Your task to perform on an android device: turn on notifications settings in the gmail app Image 0: 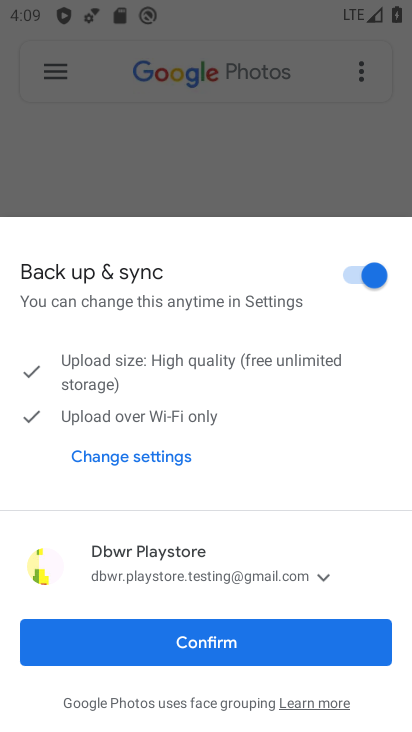
Step 0: press home button
Your task to perform on an android device: turn on notifications settings in the gmail app Image 1: 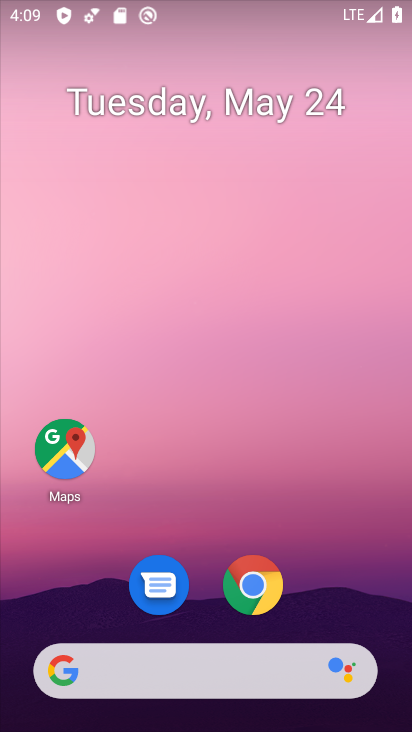
Step 1: drag from (234, 476) to (237, 98)
Your task to perform on an android device: turn on notifications settings in the gmail app Image 2: 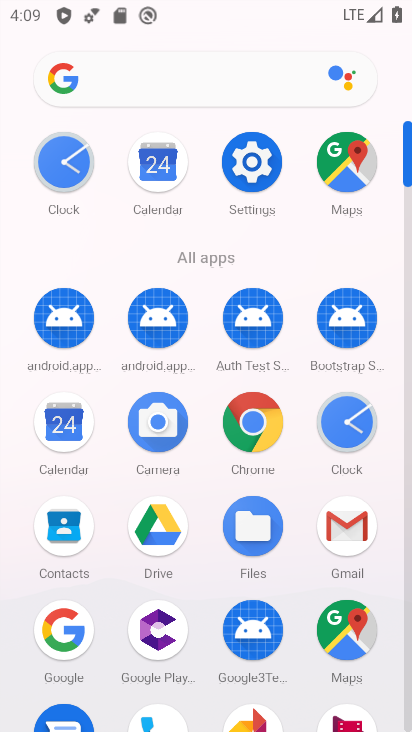
Step 2: click (350, 514)
Your task to perform on an android device: turn on notifications settings in the gmail app Image 3: 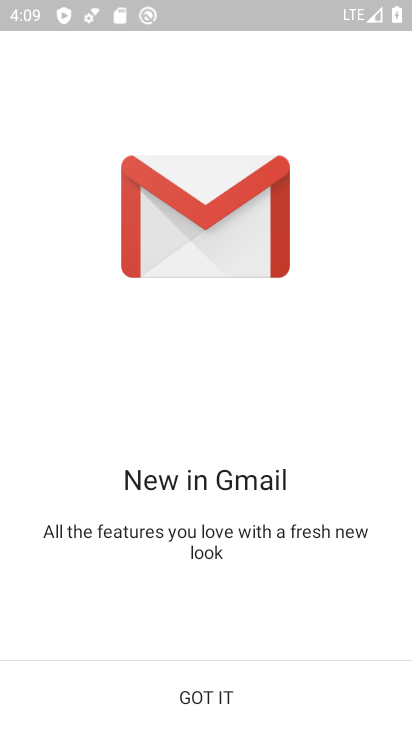
Step 3: click (301, 699)
Your task to perform on an android device: turn on notifications settings in the gmail app Image 4: 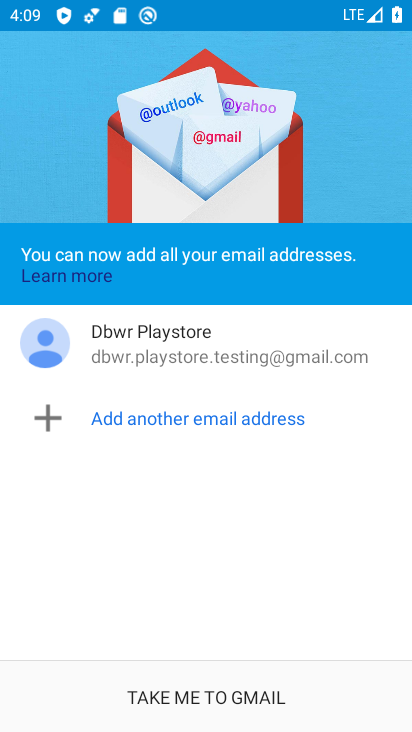
Step 4: click (301, 697)
Your task to perform on an android device: turn on notifications settings in the gmail app Image 5: 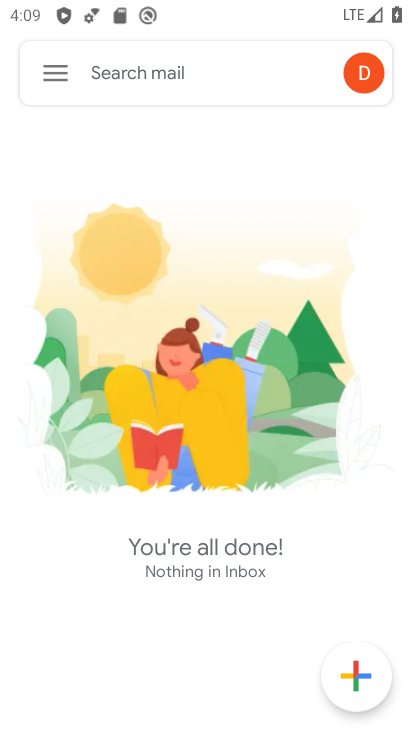
Step 5: click (45, 65)
Your task to perform on an android device: turn on notifications settings in the gmail app Image 6: 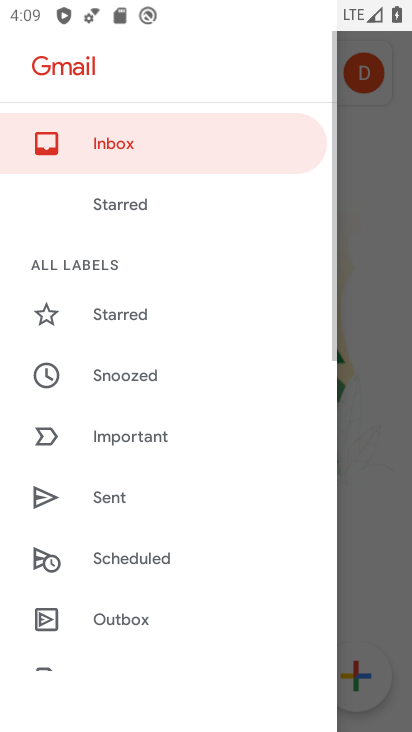
Step 6: drag from (126, 579) to (208, 95)
Your task to perform on an android device: turn on notifications settings in the gmail app Image 7: 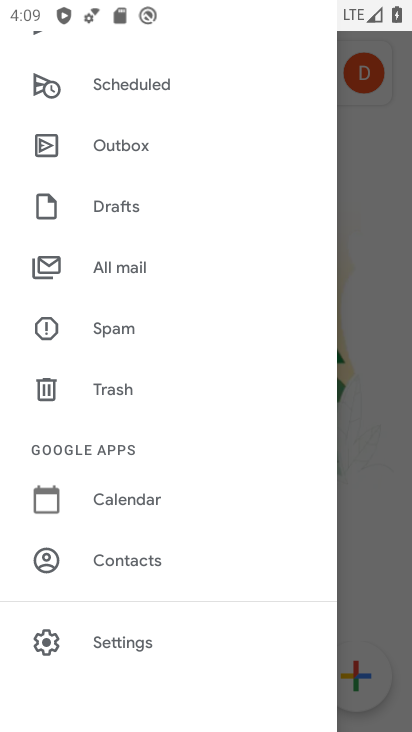
Step 7: click (144, 641)
Your task to perform on an android device: turn on notifications settings in the gmail app Image 8: 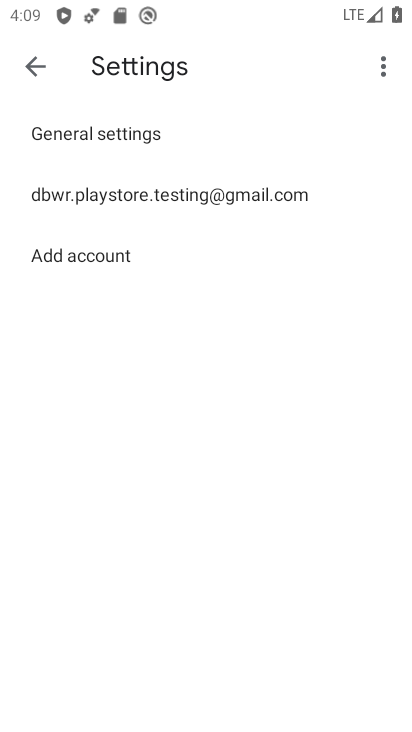
Step 8: click (249, 190)
Your task to perform on an android device: turn on notifications settings in the gmail app Image 9: 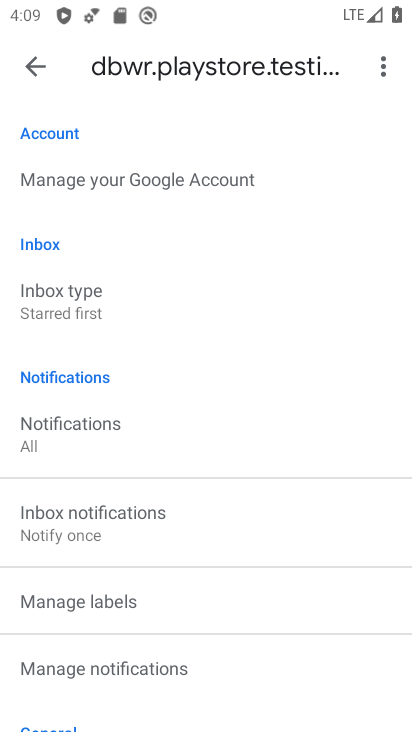
Step 9: click (127, 654)
Your task to perform on an android device: turn on notifications settings in the gmail app Image 10: 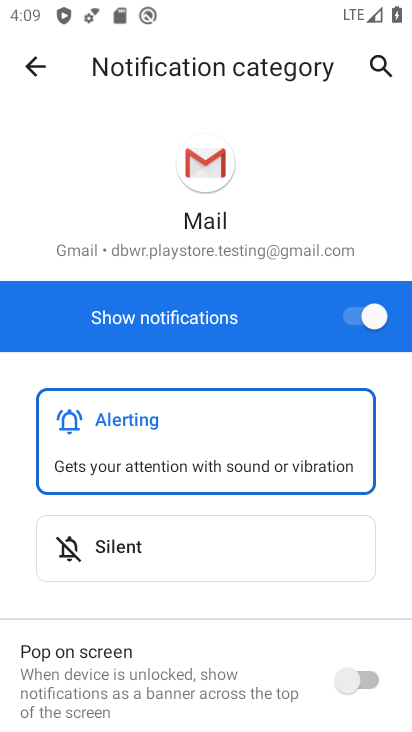
Step 10: task complete